Your task to perform on an android device: snooze an email in the gmail app Image 0: 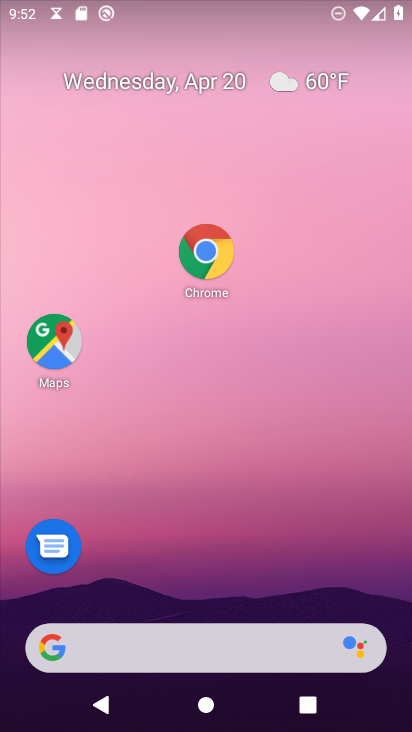
Step 0: drag from (133, 624) to (131, 154)
Your task to perform on an android device: snooze an email in the gmail app Image 1: 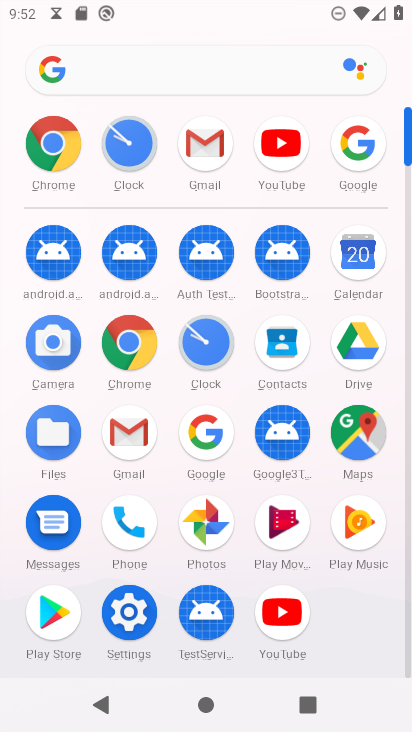
Step 1: click (208, 150)
Your task to perform on an android device: snooze an email in the gmail app Image 2: 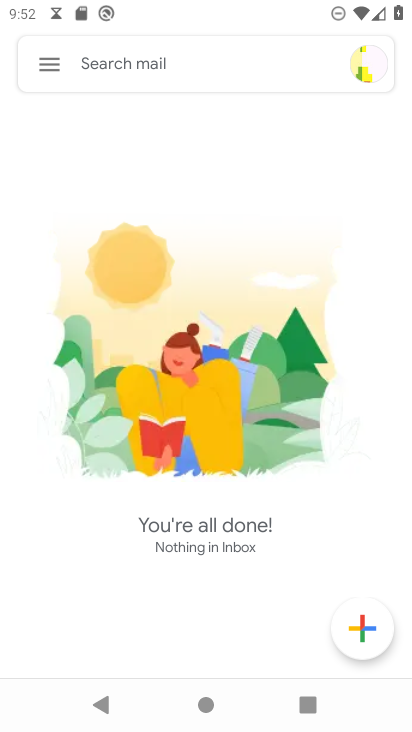
Step 2: click (51, 67)
Your task to perform on an android device: snooze an email in the gmail app Image 3: 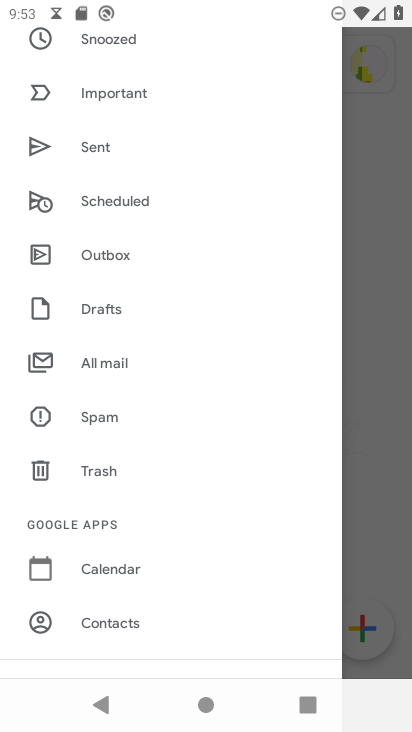
Step 3: click (110, 355)
Your task to perform on an android device: snooze an email in the gmail app Image 4: 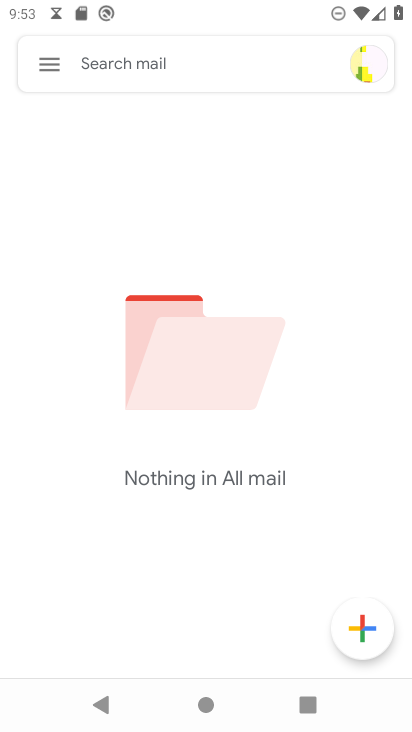
Step 4: task complete